Your task to perform on an android device: toggle notifications settings in the gmail app Image 0: 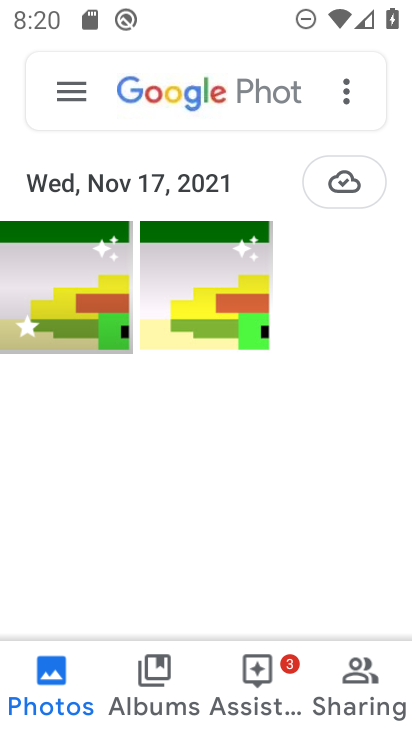
Step 0: press home button
Your task to perform on an android device: toggle notifications settings in the gmail app Image 1: 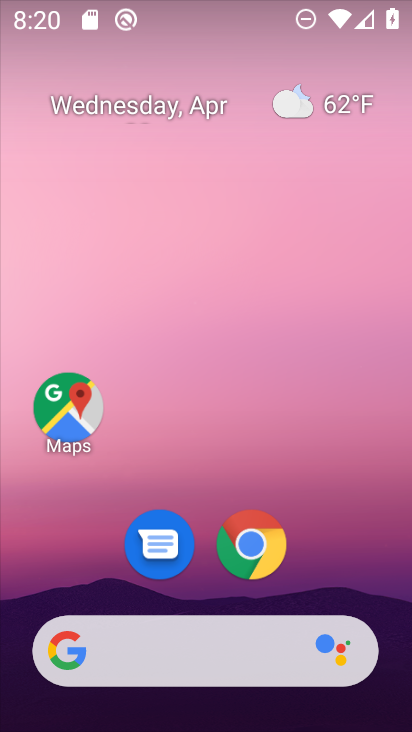
Step 1: drag from (200, 414) to (200, 156)
Your task to perform on an android device: toggle notifications settings in the gmail app Image 2: 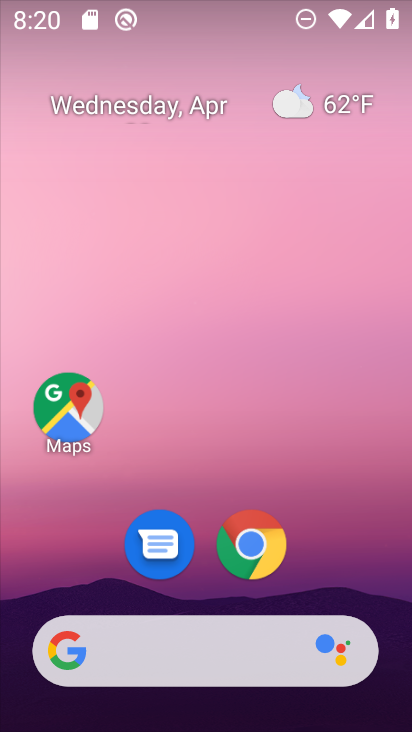
Step 2: drag from (199, 583) to (204, 215)
Your task to perform on an android device: toggle notifications settings in the gmail app Image 3: 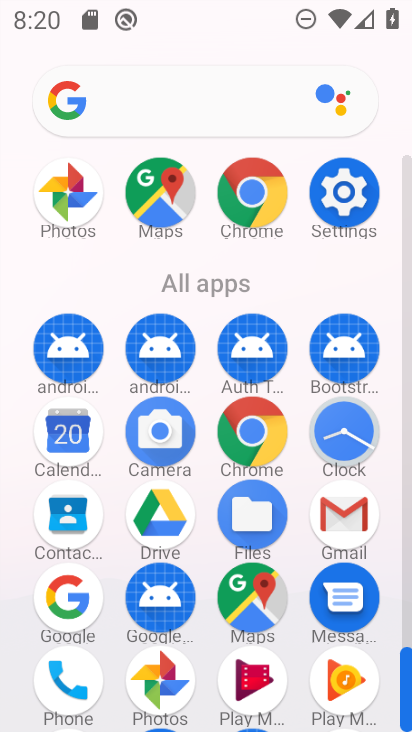
Step 3: click (336, 504)
Your task to perform on an android device: toggle notifications settings in the gmail app Image 4: 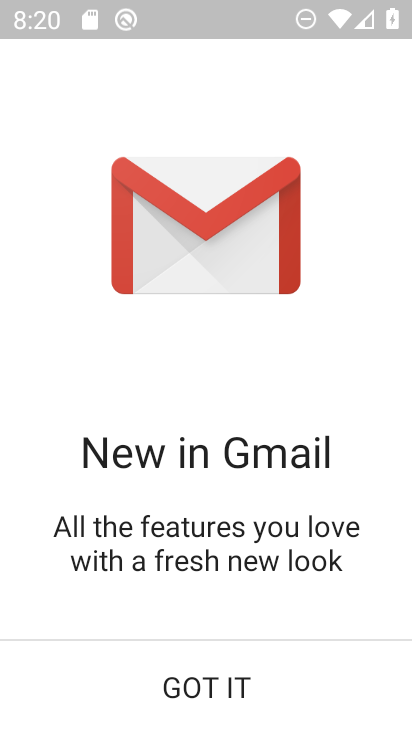
Step 4: click (263, 684)
Your task to perform on an android device: toggle notifications settings in the gmail app Image 5: 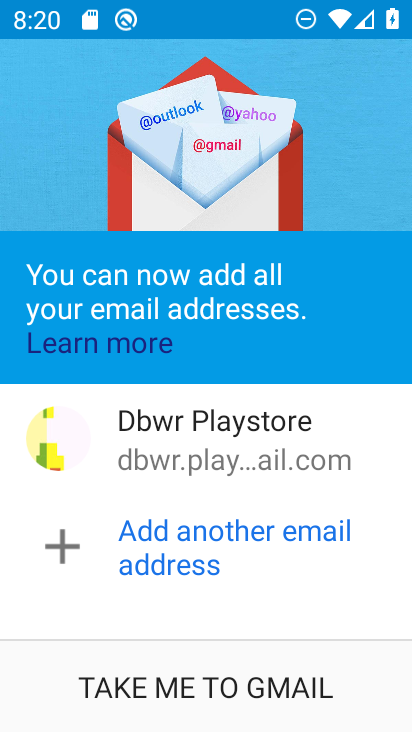
Step 5: click (263, 684)
Your task to perform on an android device: toggle notifications settings in the gmail app Image 6: 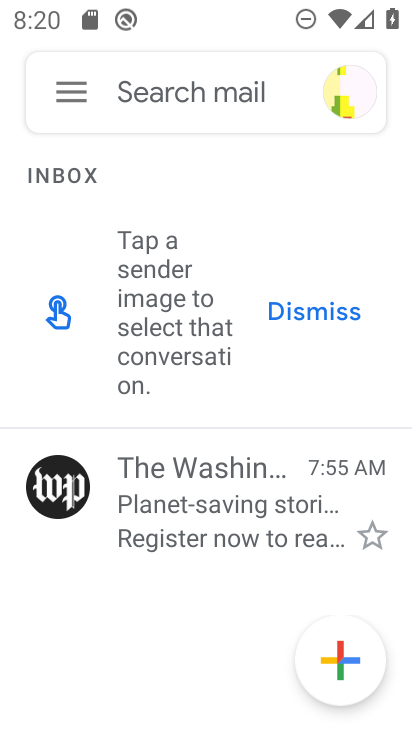
Step 6: click (75, 87)
Your task to perform on an android device: toggle notifications settings in the gmail app Image 7: 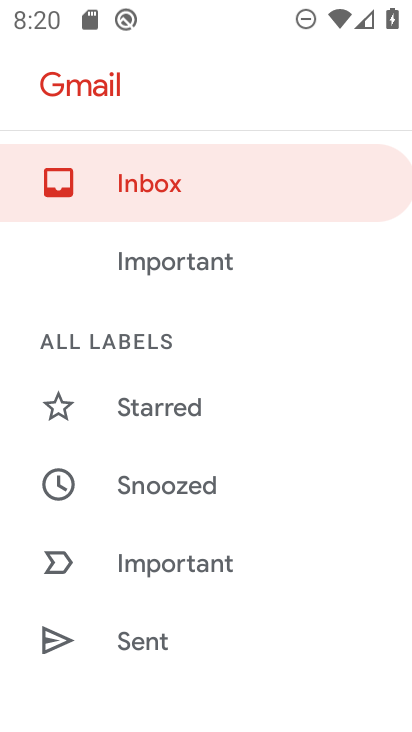
Step 7: drag from (160, 587) to (202, 131)
Your task to perform on an android device: toggle notifications settings in the gmail app Image 8: 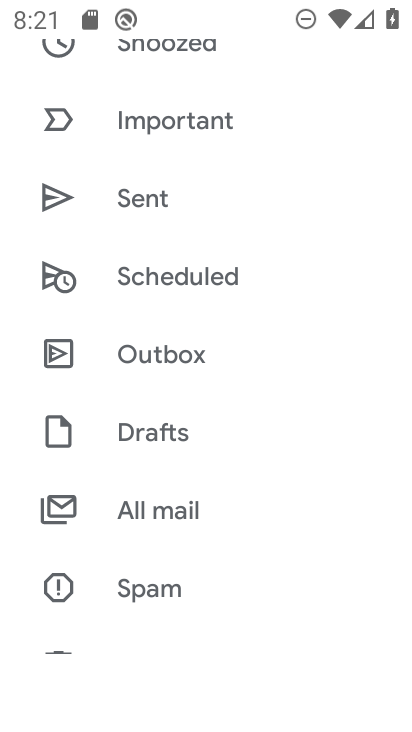
Step 8: drag from (219, 558) to (252, 200)
Your task to perform on an android device: toggle notifications settings in the gmail app Image 9: 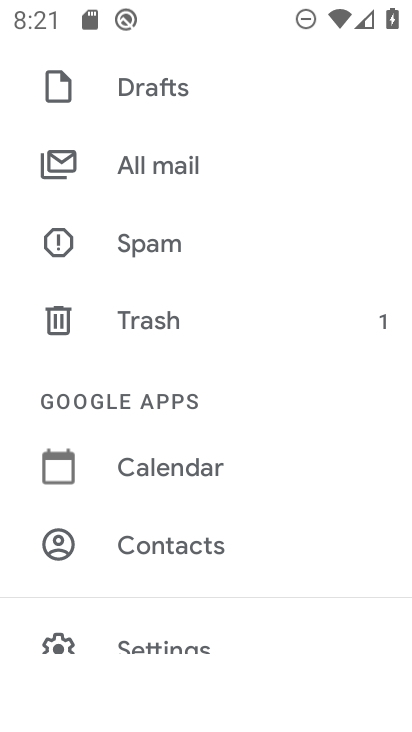
Step 9: drag from (182, 567) to (218, 219)
Your task to perform on an android device: toggle notifications settings in the gmail app Image 10: 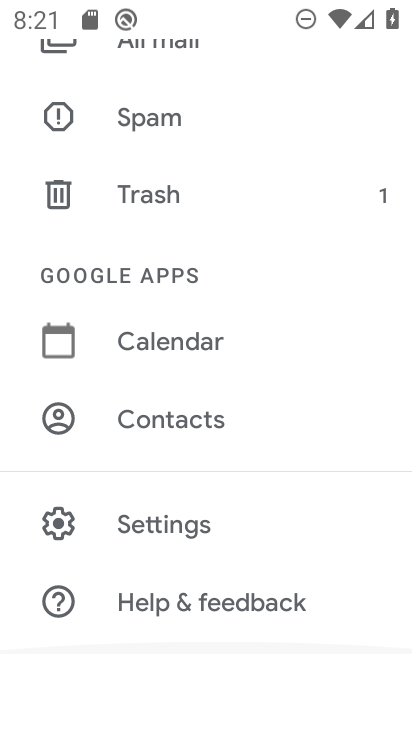
Step 10: click (175, 521)
Your task to perform on an android device: toggle notifications settings in the gmail app Image 11: 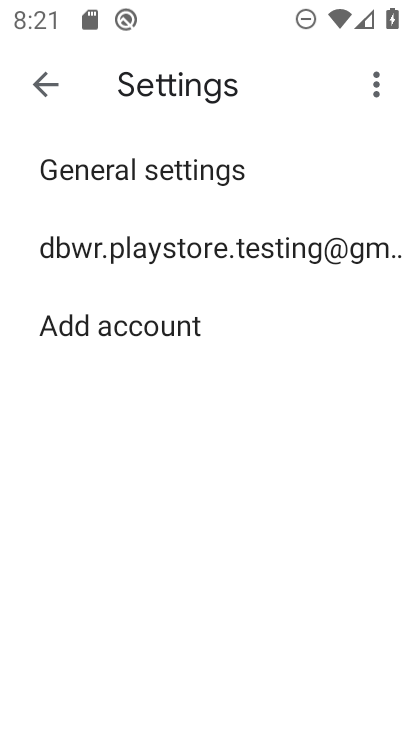
Step 11: click (151, 244)
Your task to perform on an android device: toggle notifications settings in the gmail app Image 12: 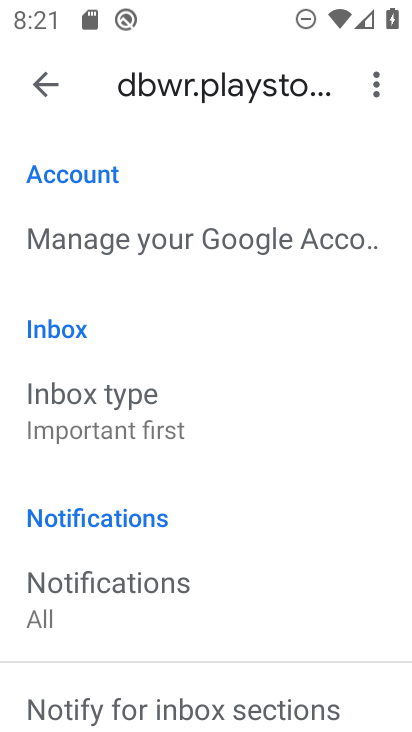
Step 12: drag from (199, 653) to (252, 219)
Your task to perform on an android device: toggle notifications settings in the gmail app Image 13: 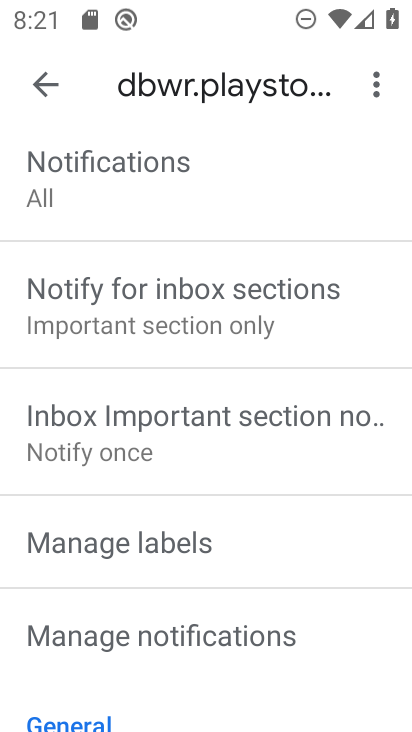
Step 13: click (146, 610)
Your task to perform on an android device: toggle notifications settings in the gmail app Image 14: 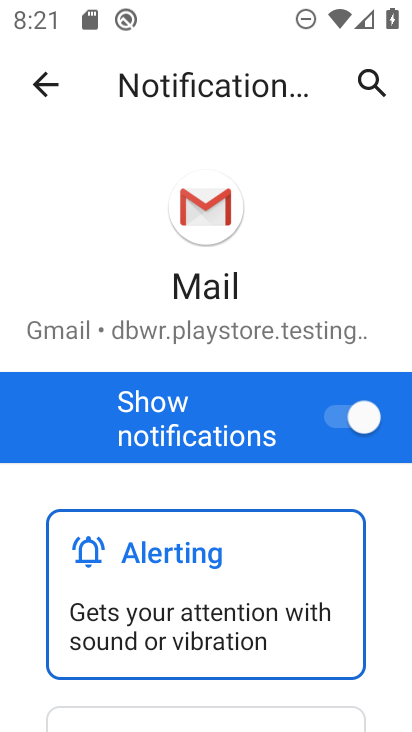
Step 14: click (324, 410)
Your task to perform on an android device: toggle notifications settings in the gmail app Image 15: 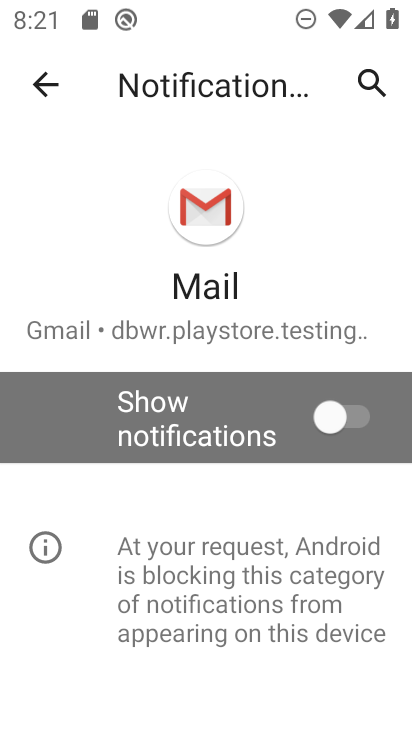
Step 15: task complete